Your task to perform on an android device: When is my next meeting? Image 0: 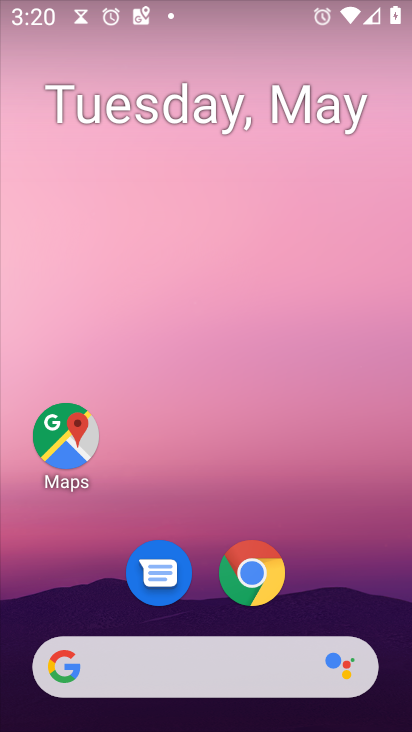
Step 0: drag from (311, 551) to (220, 72)
Your task to perform on an android device: When is my next meeting? Image 1: 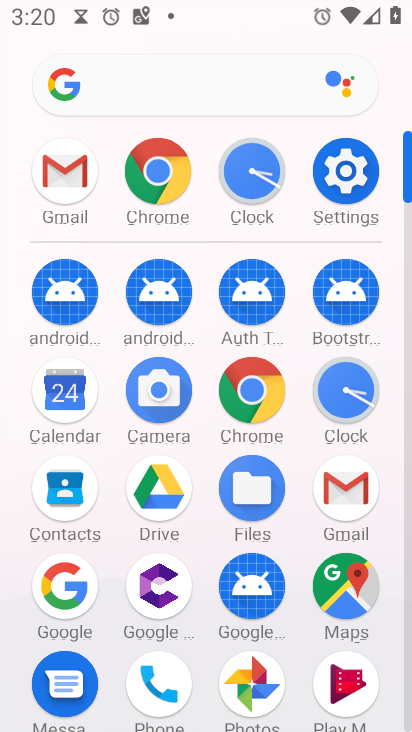
Step 1: drag from (34, 581) to (7, 217)
Your task to perform on an android device: When is my next meeting? Image 2: 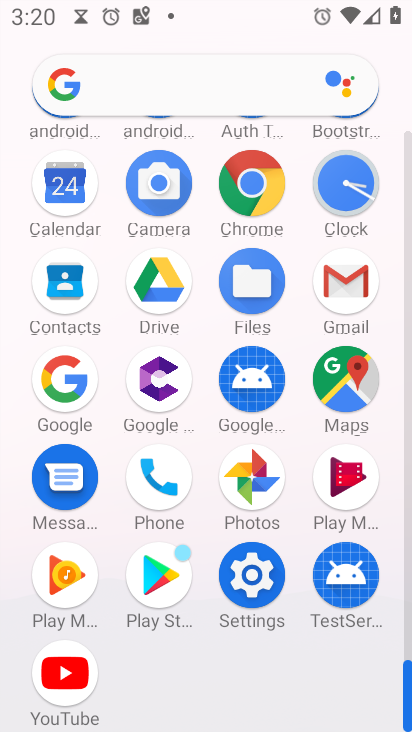
Step 2: click (59, 183)
Your task to perform on an android device: When is my next meeting? Image 3: 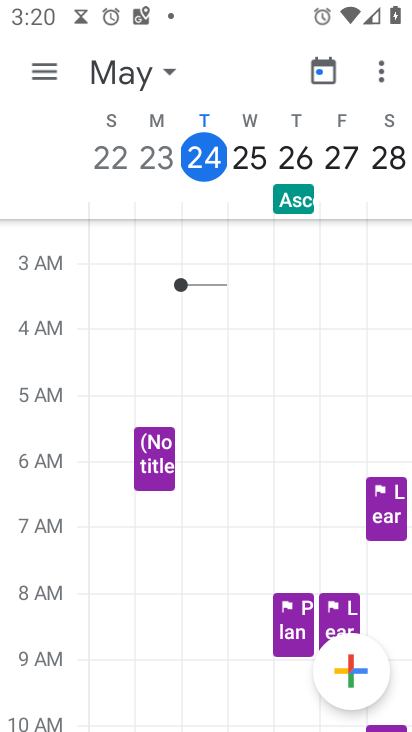
Step 3: press back button
Your task to perform on an android device: When is my next meeting? Image 4: 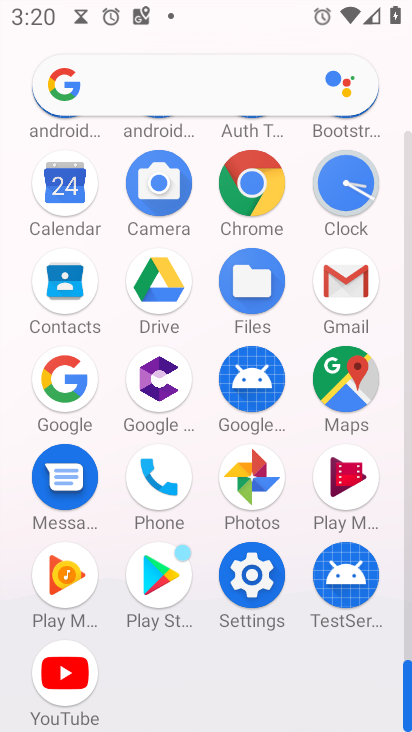
Step 4: press home button
Your task to perform on an android device: When is my next meeting? Image 5: 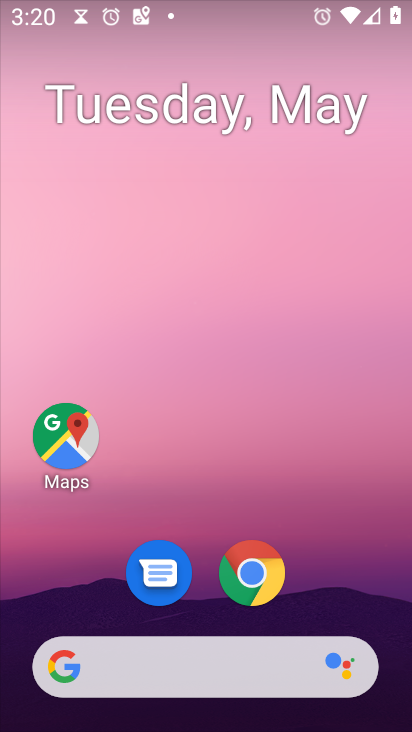
Step 5: drag from (331, 572) to (285, 62)
Your task to perform on an android device: When is my next meeting? Image 6: 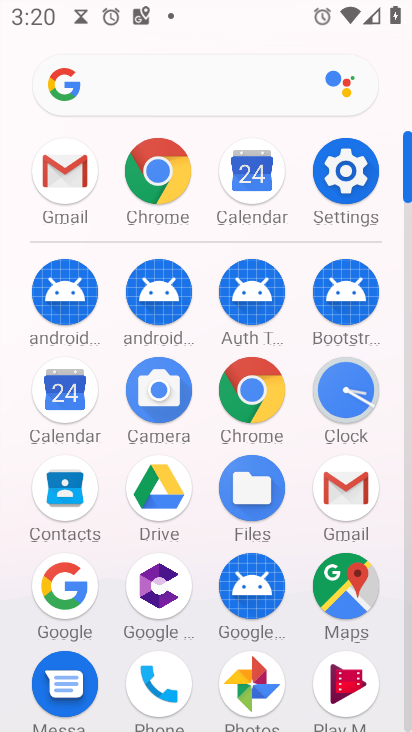
Step 6: drag from (19, 537) to (12, 220)
Your task to perform on an android device: When is my next meeting? Image 7: 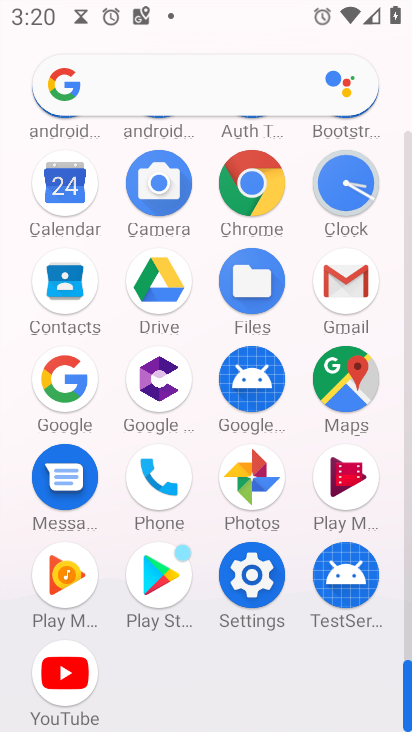
Step 7: click (64, 172)
Your task to perform on an android device: When is my next meeting? Image 8: 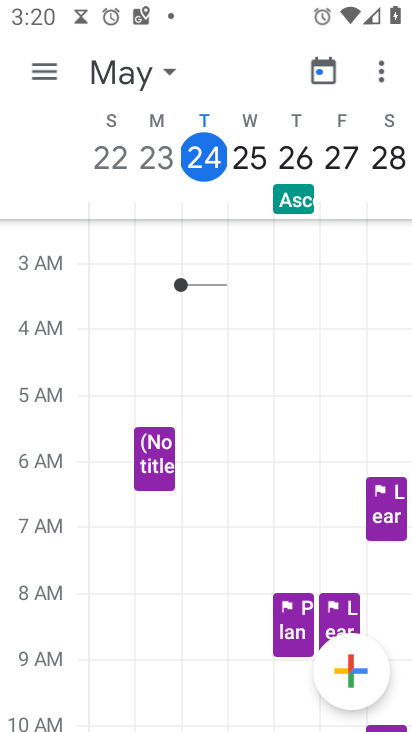
Step 8: click (47, 84)
Your task to perform on an android device: When is my next meeting? Image 9: 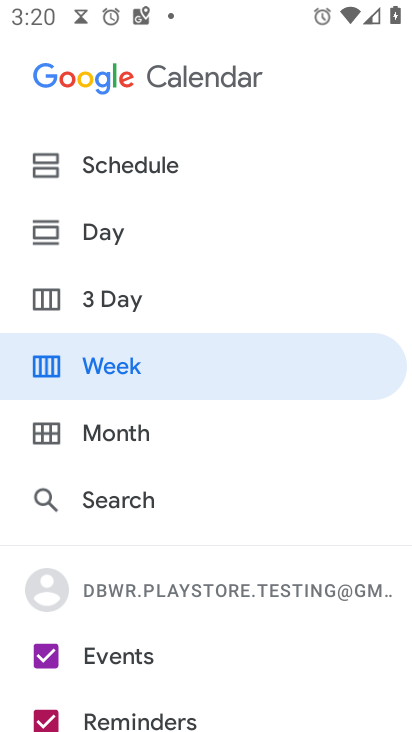
Step 9: click (147, 174)
Your task to perform on an android device: When is my next meeting? Image 10: 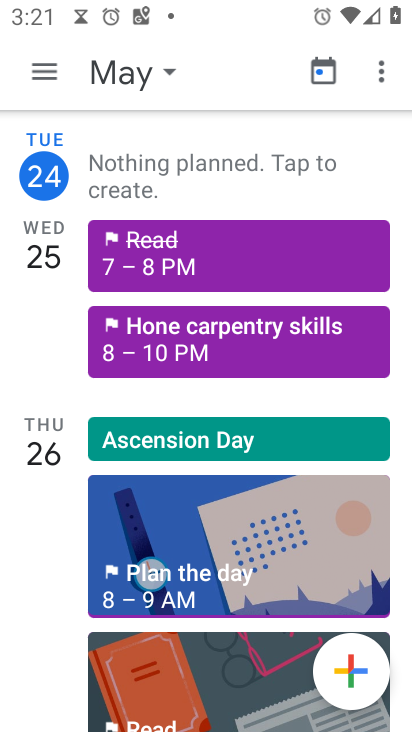
Step 10: task complete